Your task to perform on an android device: uninstall "AliExpress" Image 0: 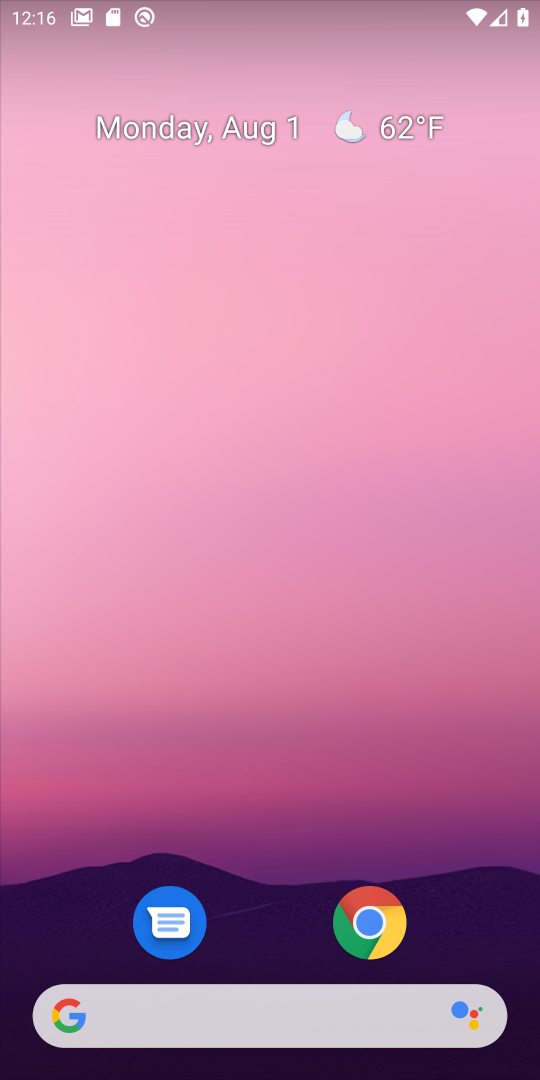
Step 0: drag from (287, 831) to (311, 116)
Your task to perform on an android device: uninstall "AliExpress" Image 1: 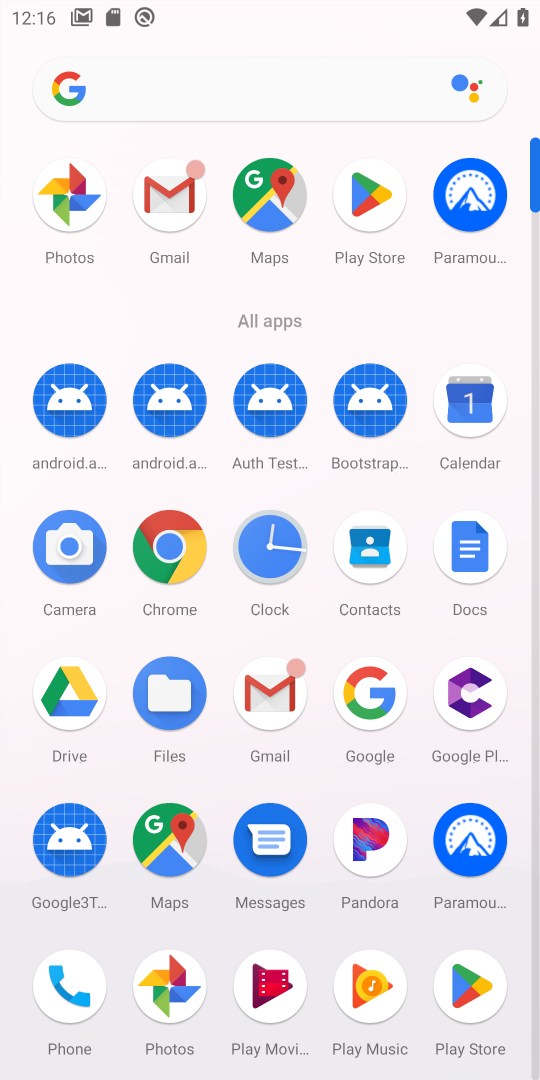
Step 1: click (385, 186)
Your task to perform on an android device: uninstall "AliExpress" Image 2: 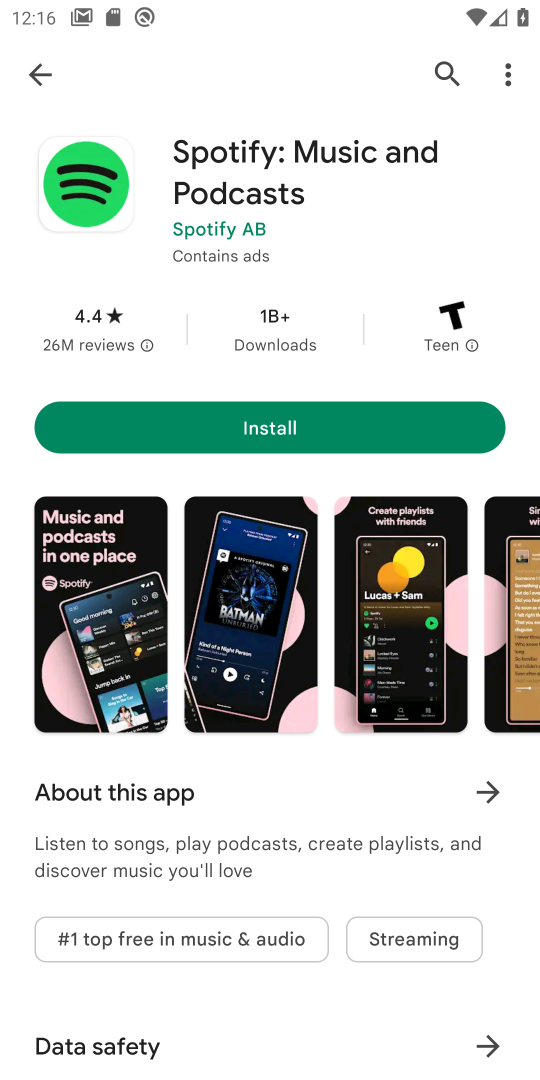
Step 2: click (456, 59)
Your task to perform on an android device: uninstall "AliExpress" Image 3: 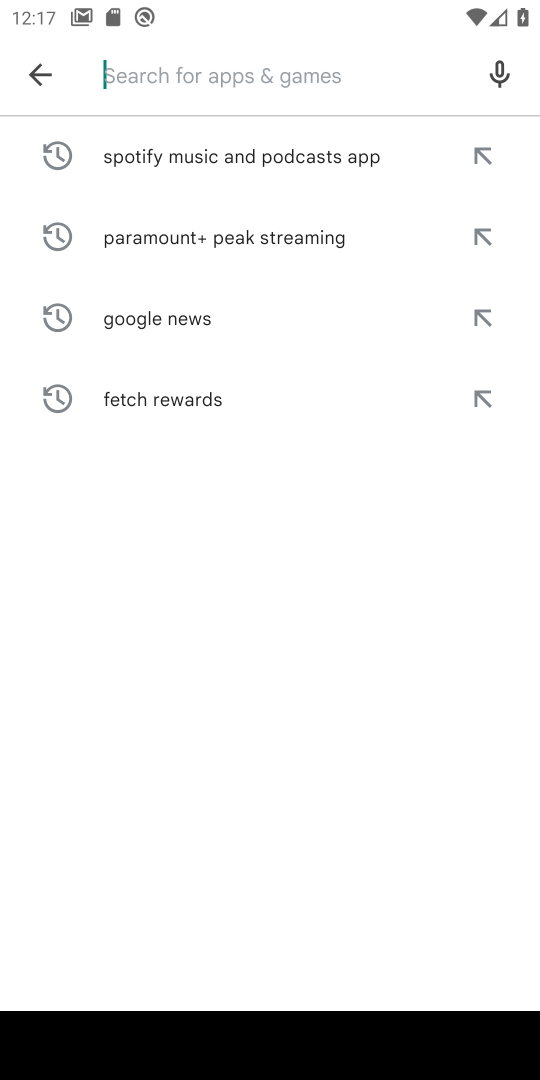
Step 3: type "AliExpress"
Your task to perform on an android device: uninstall "AliExpress" Image 4: 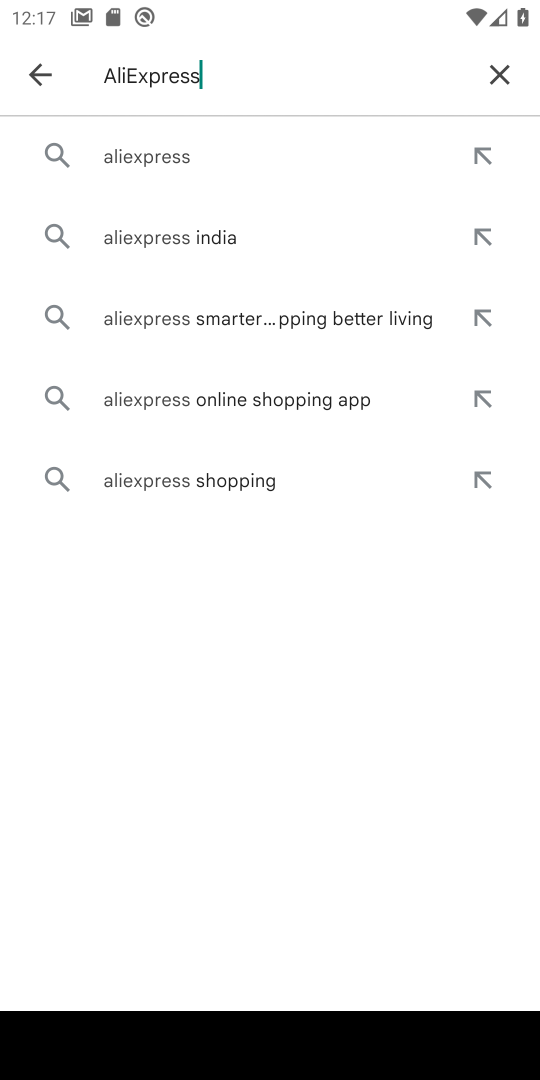
Step 4: click (230, 167)
Your task to perform on an android device: uninstall "AliExpress" Image 5: 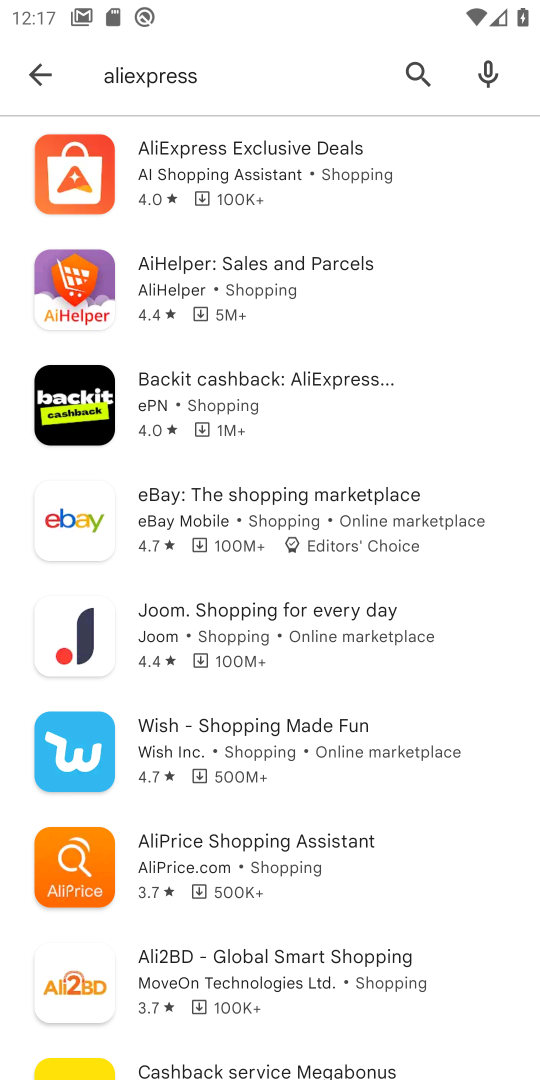
Step 5: click (208, 182)
Your task to perform on an android device: uninstall "AliExpress" Image 6: 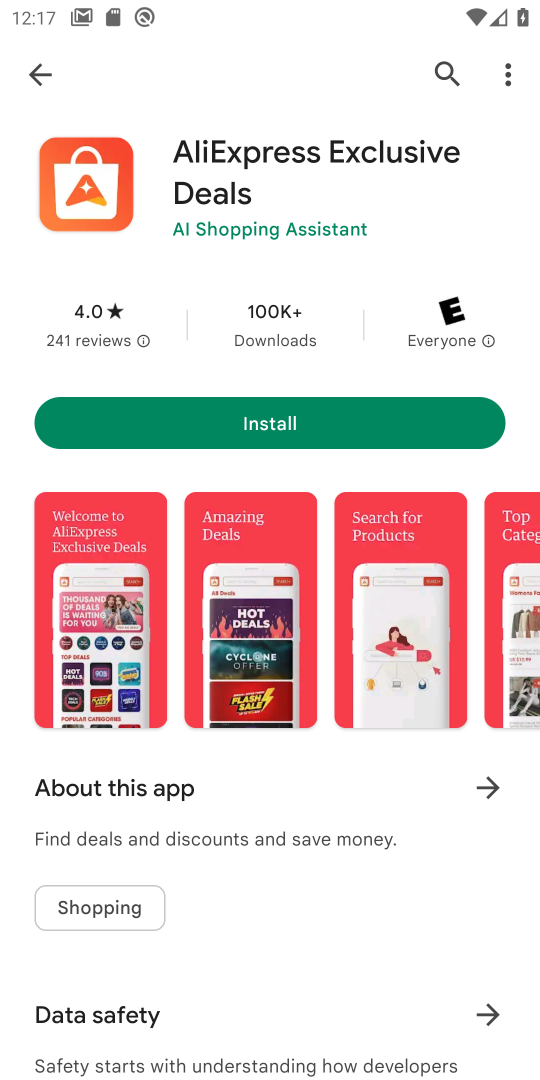
Step 6: task complete